Your task to perform on an android device: open device folders in google photos Image 0: 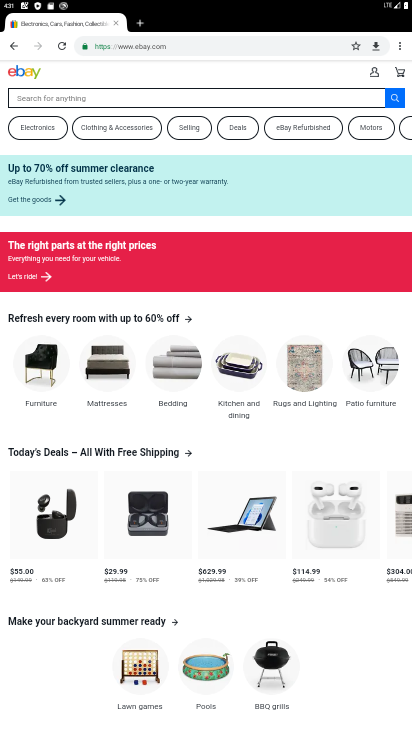
Step 0: press home button
Your task to perform on an android device: open device folders in google photos Image 1: 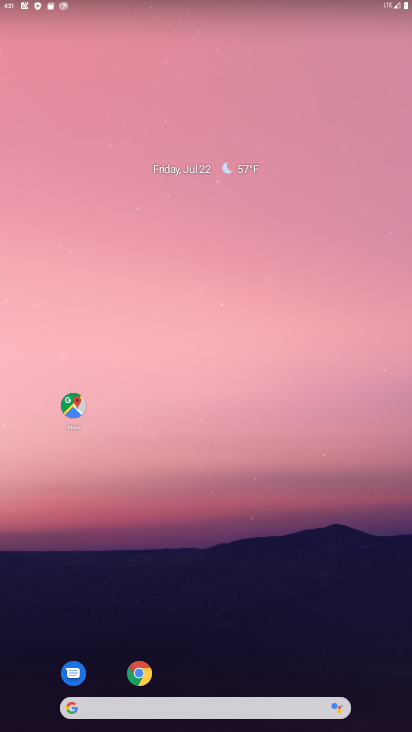
Step 1: drag from (191, 631) to (154, 99)
Your task to perform on an android device: open device folders in google photos Image 2: 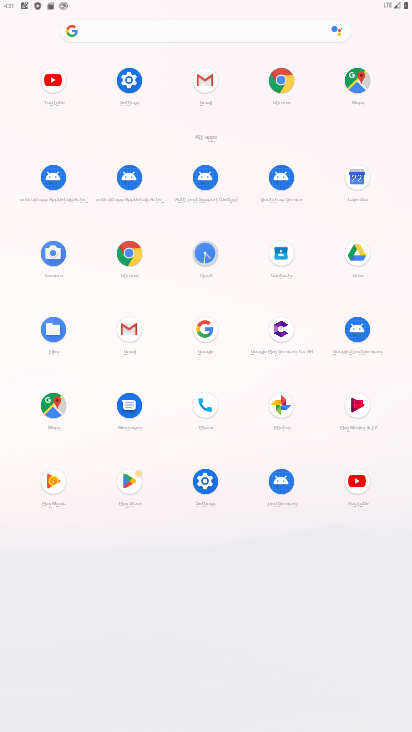
Step 2: click (278, 400)
Your task to perform on an android device: open device folders in google photos Image 3: 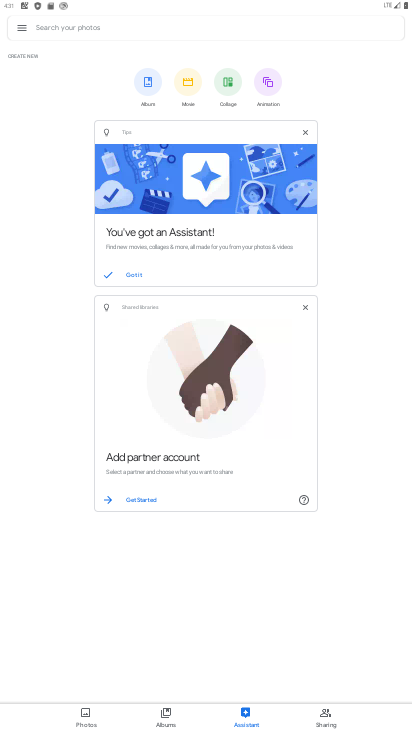
Step 3: click (20, 27)
Your task to perform on an android device: open device folders in google photos Image 4: 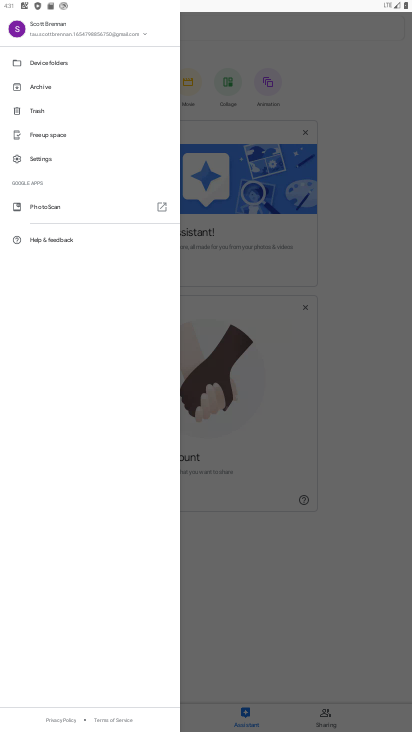
Step 4: click (73, 60)
Your task to perform on an android device: open device folders in google photos Image 5: 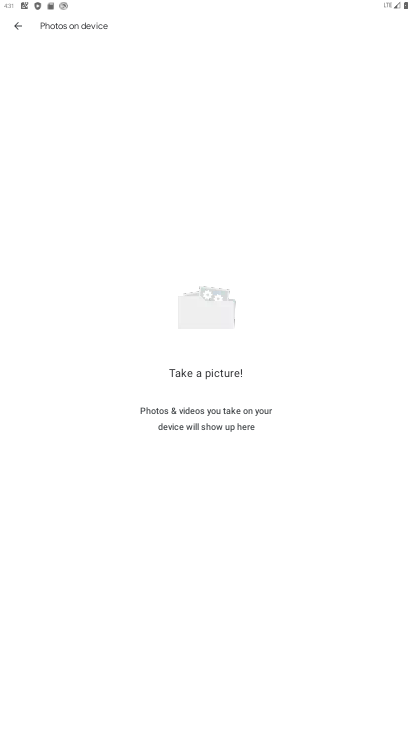
Step 5: task complete